Your task to perform on an android device: make emails show in primary in the gmail app Image 0: 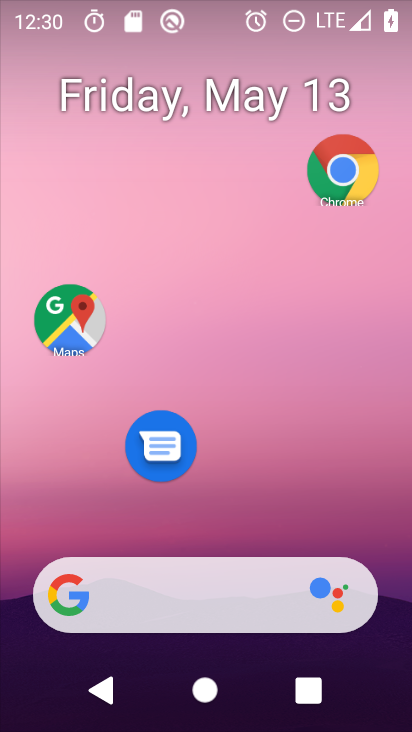
Step 0: drag from (291, 538) to (266, 21)
Your task to perform on an android device: make emails show in primary in the gmail app Image 1: 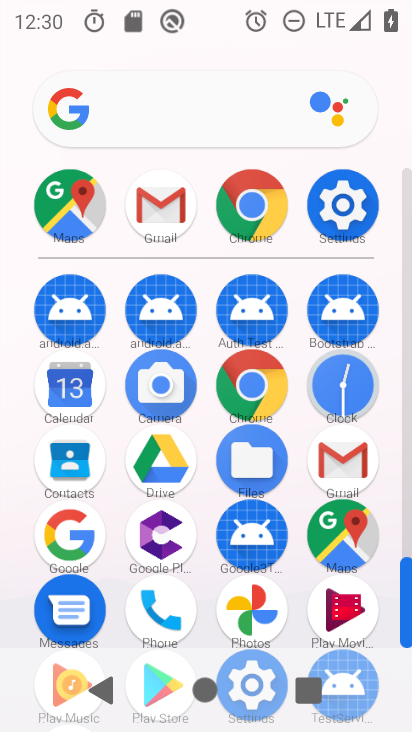
Step 1: click (339, 465)
Your task to perform on an android device: make emails show in primary in the gmail app Image 2: 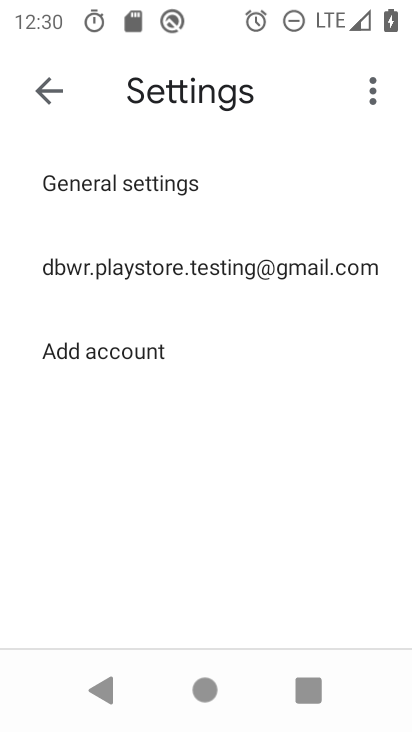
Step 2: press back button
Your task to perform on an android device: make emails show in primary in the gmail app Image 3: 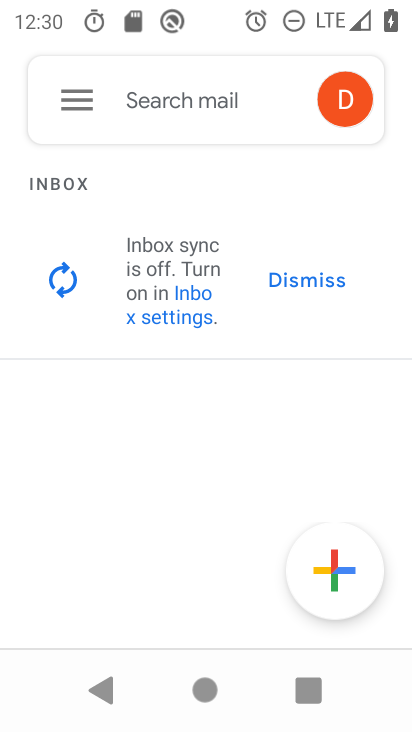
Step 3: click (90, 99)
Your task to perform on an android device: make emails show in primary in the gmail app Image 4: 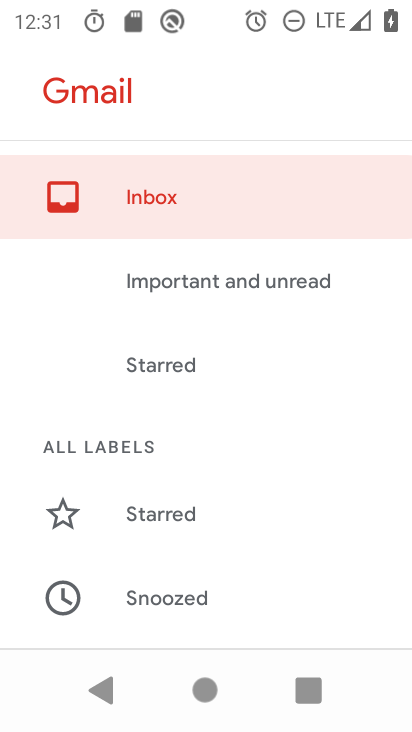
Step 4: drag from (257, 643) to (312, 12)
Your task to perform on an android device: make emails show in primary in the gmail app Image 5: 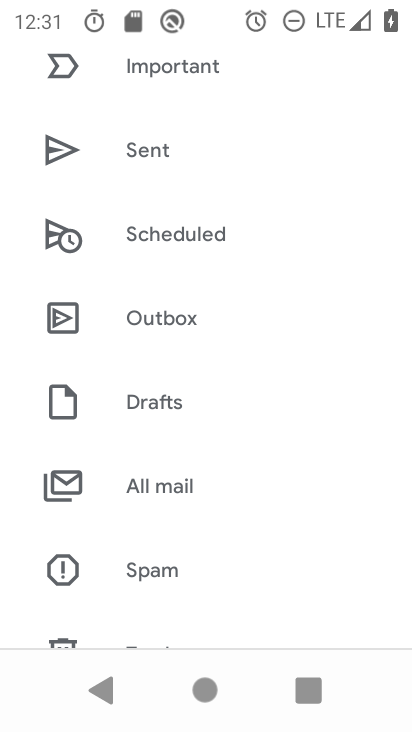
Step 5: drag from (248, 663) to (119, 100)
Your task to perform on an android device: make emails show in primary in the gmail app Image 6: 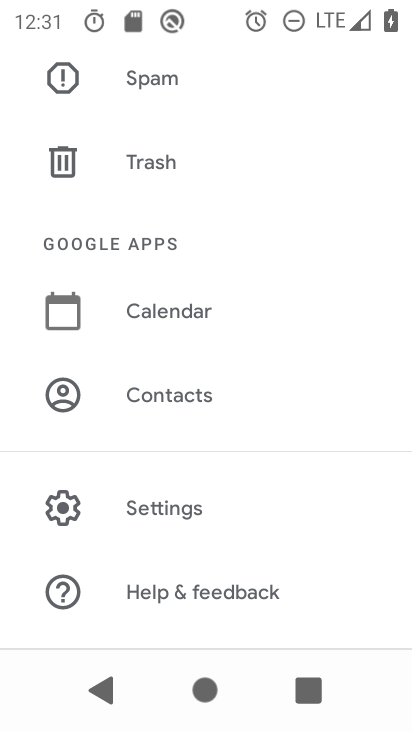
Step 6: click (189, 512)
Your task to perform on an android device: make emails show in primary in the gmail app Image 7: 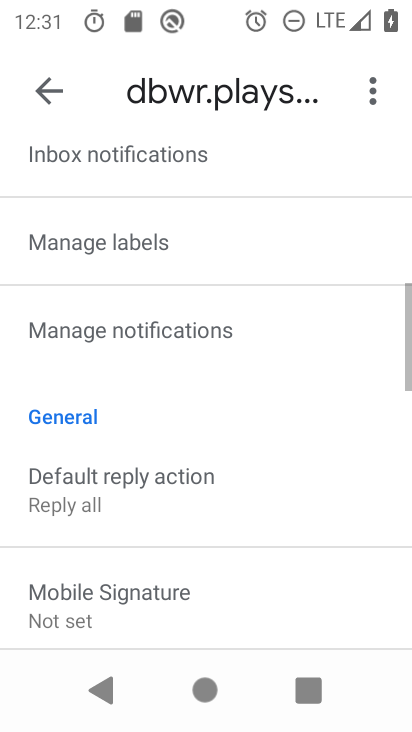
Step 7: drag from (200, 389) to (268, 666)
Your task to perform on an android device: make emails show in primary in the gmail app Image 8: 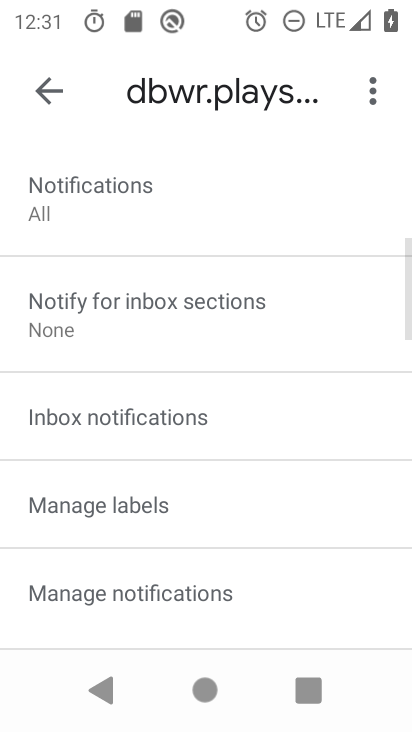
Step 8: drag from (284, 255) to (316, 661)
Your task to perform on an android device: make emails show in primary in the gmail app Image 9: 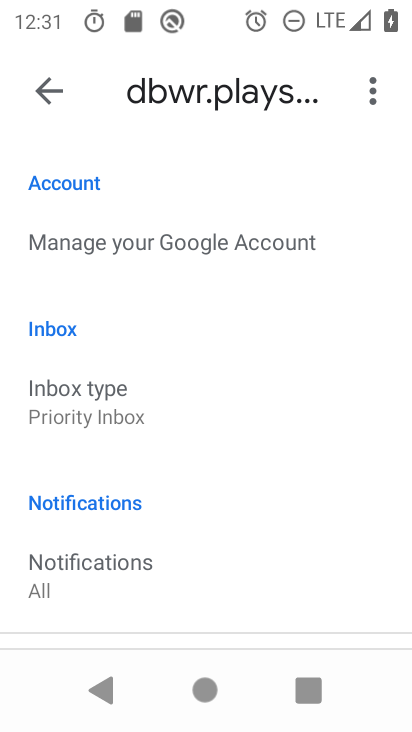
Step 9: click (142, 425)
Your task to perform on an android device: make emails show in primary in the gmail app Image 10: 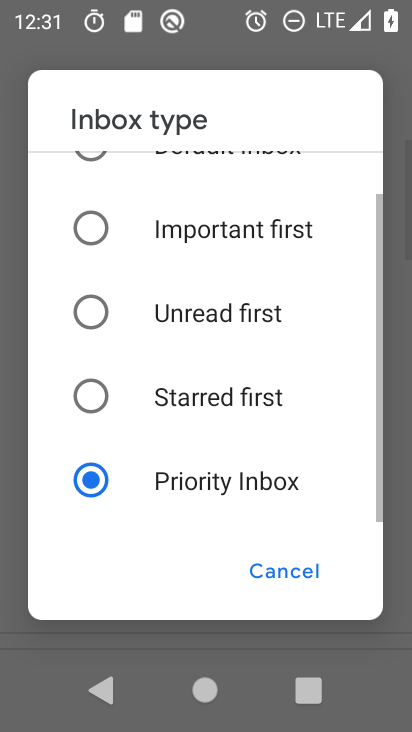
Step 10: drag from (126, 246) to (143, 553)
Your task to perform on an android device: make emails show in primary in the gmail app Image 11: 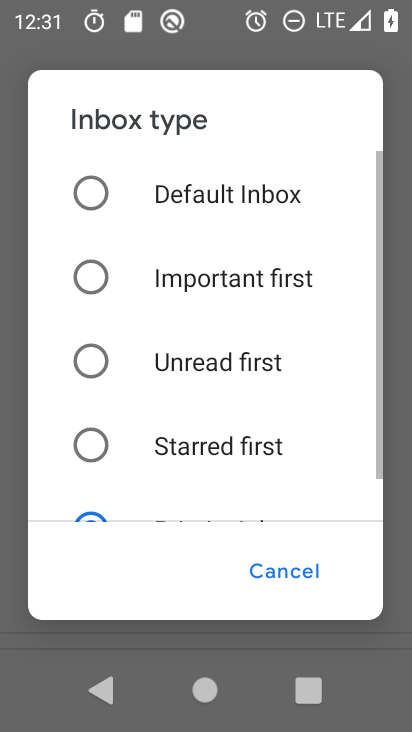
Step 11: click (78, 191)
Your task to perform on an android device: make emails show in primary in the gmail app Image 12: 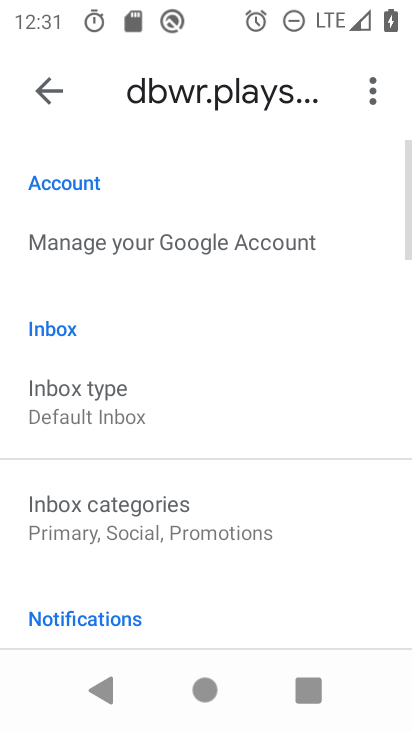
Step 12: drag from (181, 287) to (174, 636)
Your task to perform on an android device: make emails show in primary in the gmail app Image 13: 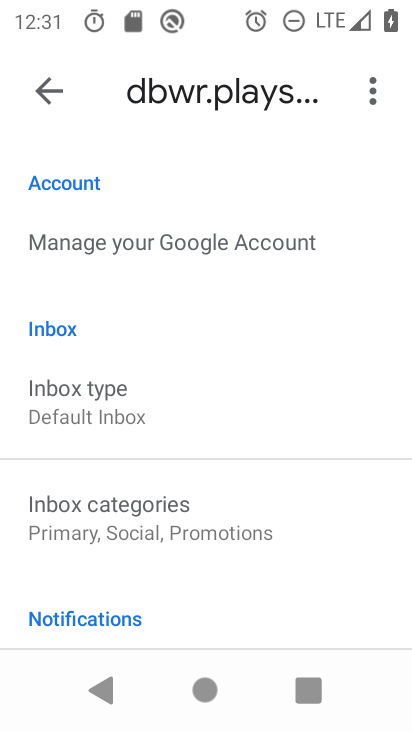
Step 13: press back button
Your task to perform on an android device: make emails show in primary in the gmail app Image 14: 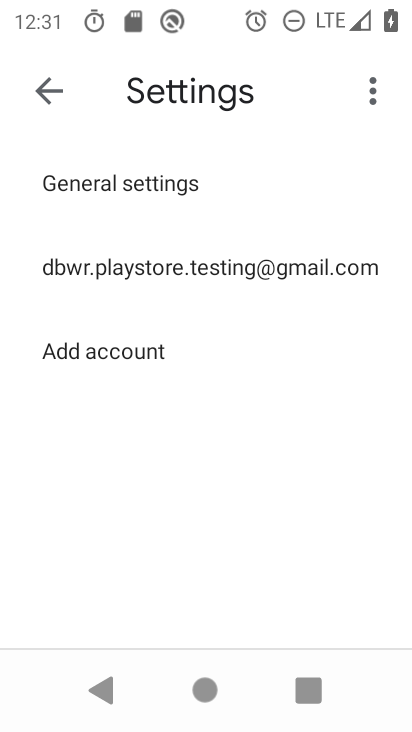
Step 14: press back button
Your task to perform on an android device: make emails show in primary in the gmail app Image 15: 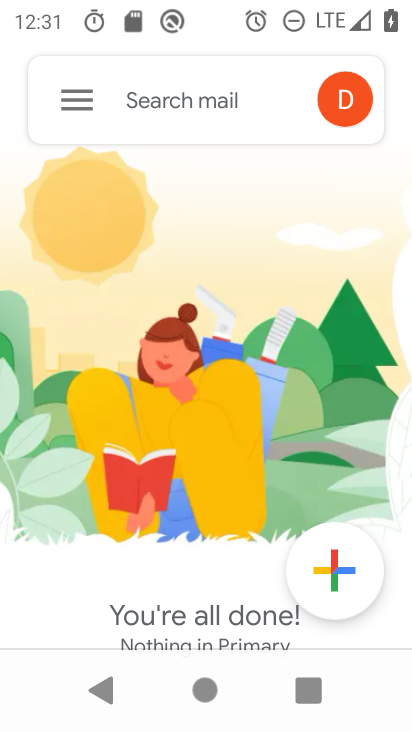
Step 15: click (58, 99)
Your task to perform on an android device: make emails show in primary in the gmail app Image 16: 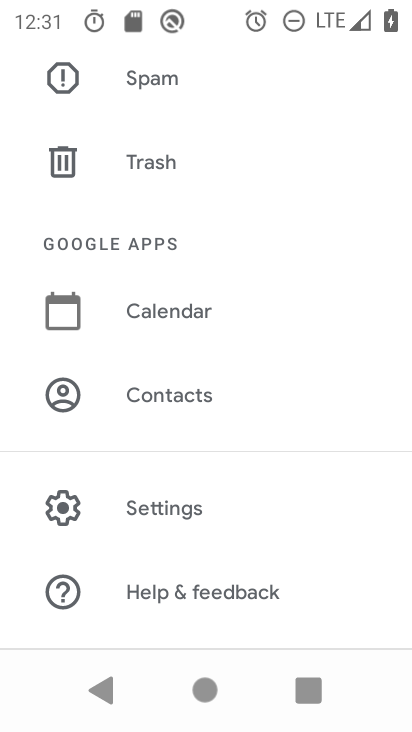
Step 16: task complete